Your task to perform on an android device: Open ESPN.com Image 0: 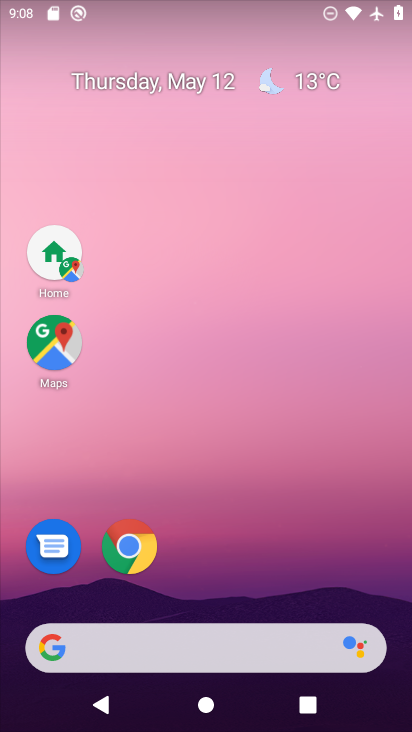
Step 0: press home button
Your task to perform on an android device: Open ESPN.com Image 1: 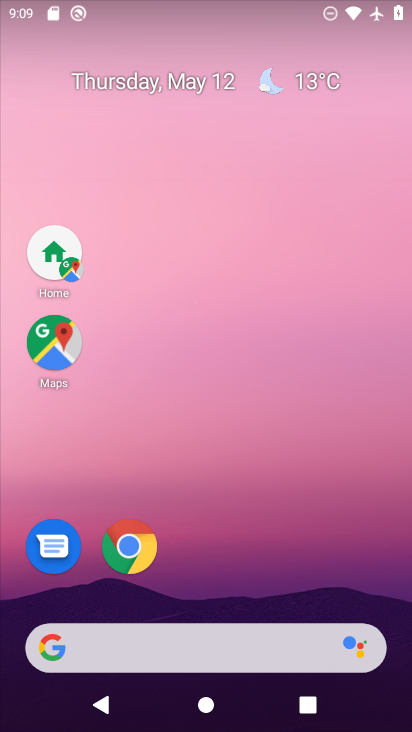
Step 1: click (133, 556)
Your task to perform on an android device: Open ESPN.com Image 2: 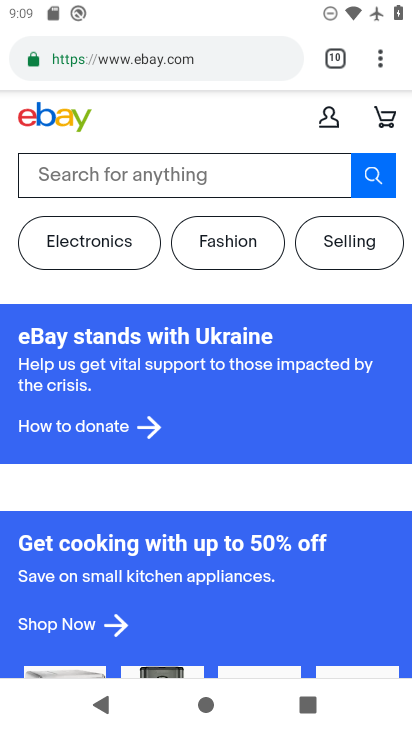
Step 2: drag from (381, 66) to (243, 117)
Your task to perform on an android device: Open ESPN.com Image 3: 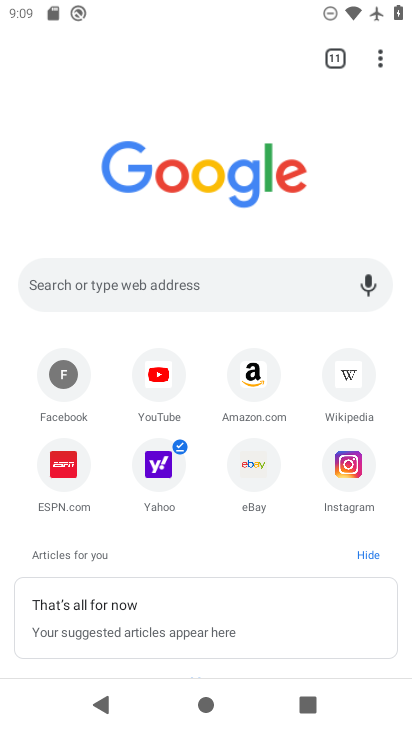
Step 3: click (64, 470)
Your task to perform on an android device: Open ESPN.com Image 4: 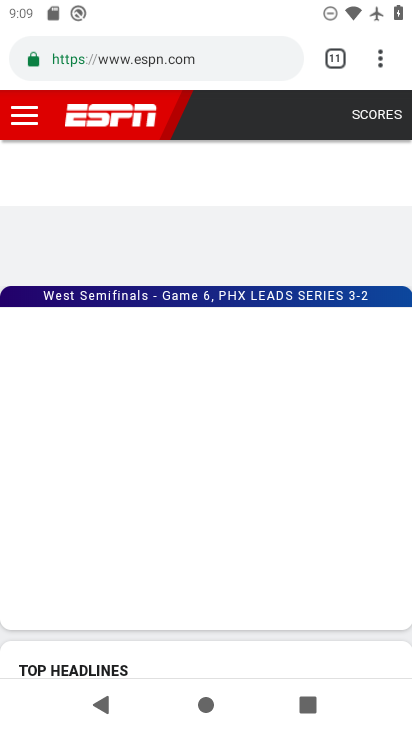
Step 4: task complete